Your task to perform on an android device: Show me popular videos on Youtube Image 0: 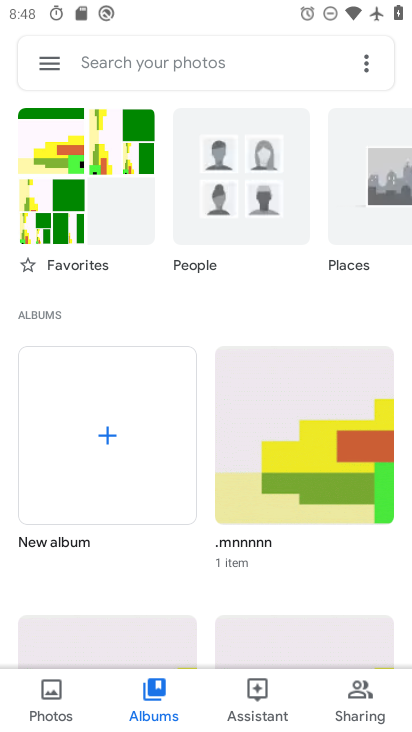
Step 0: press home button
Your task to perform on an android device: Show me popular videos on Youtube Image 1: 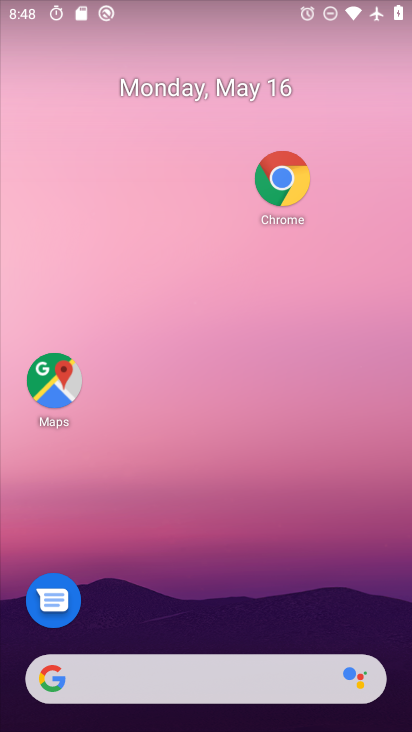
Step 1: drag from (213, 676) to (309, 168)
Your task to perform on an android device: Show me popular videos on Youtube Image 2: 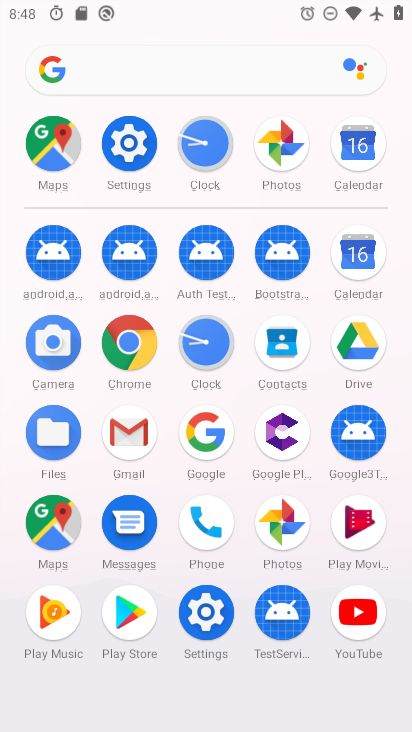
Step 2: click (360, 612)
Your task to perform on an android device: Show me popular videos on Youtube Image 3: 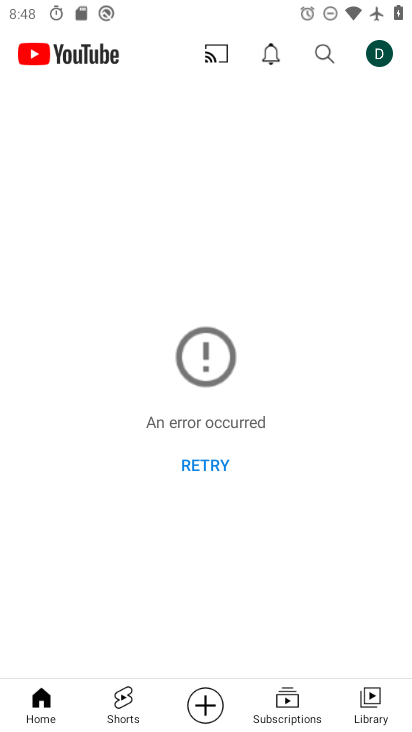
Step 3: click (199, 467)
Your task to perform on an android device: Show me popular videos on Youtube Image 4: 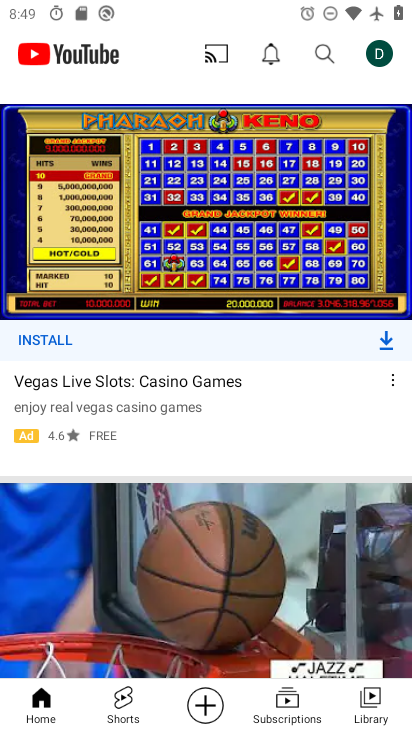
Step 4: task complete